Your task to perform on an android device: turn on javascript in the chrome app Image 0: 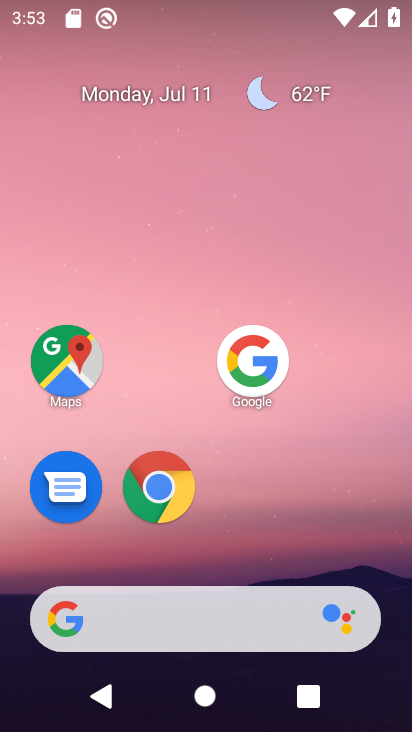
Step 0: click (163, 500)
Your task to perform on an android device: turn on javascript in the chrome app Image 1: 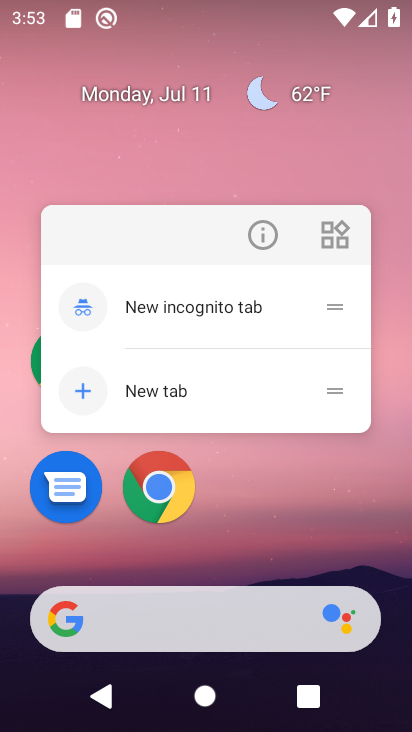
Step 1: click (168, 488)
Your task to perform on an android device: turn on javascript in the chrome app Image 2: 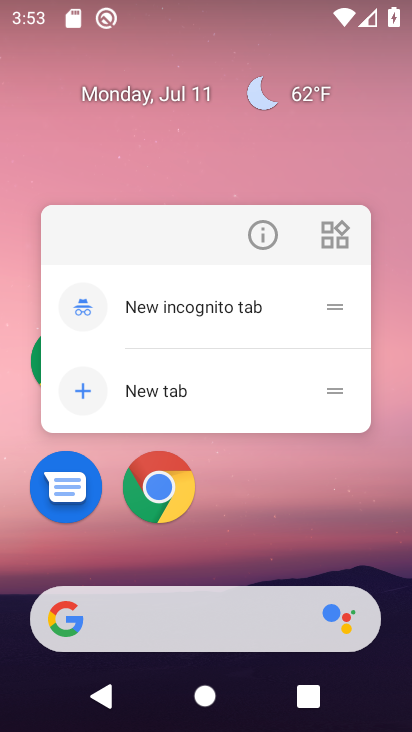
Step 2: click (168, 489)
Your task to perform on an android device: turn on javascript in the chrome app Image 3: 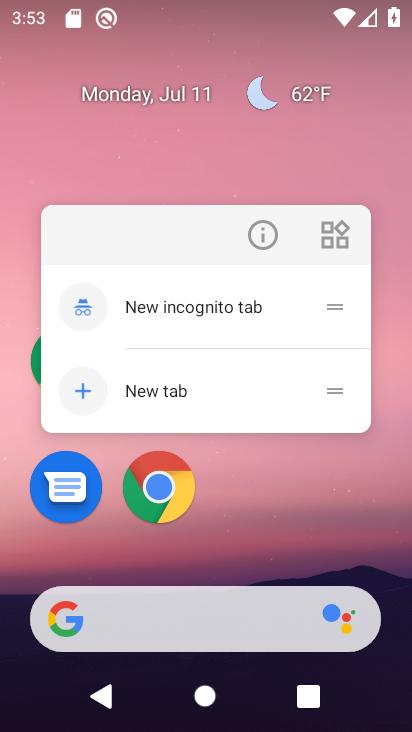
Step 3: click (163, 500)
Your task to perform on an android device: turn on javascript in the chrome app Image 4: 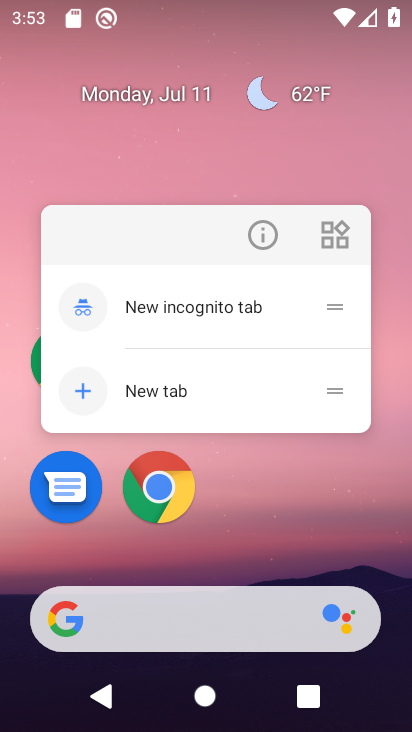
Step 4: click (160, 500)
Your task to perform on an android device: turn on javascript in the chrome app Image 5: 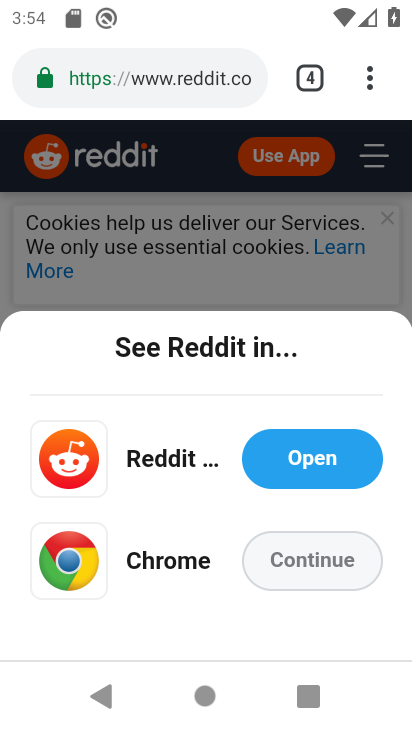
Step 5: drag from (371, 88) to (159, 559)
Your task to perform on an android device: turn on javascript in the chrome app Image 6: 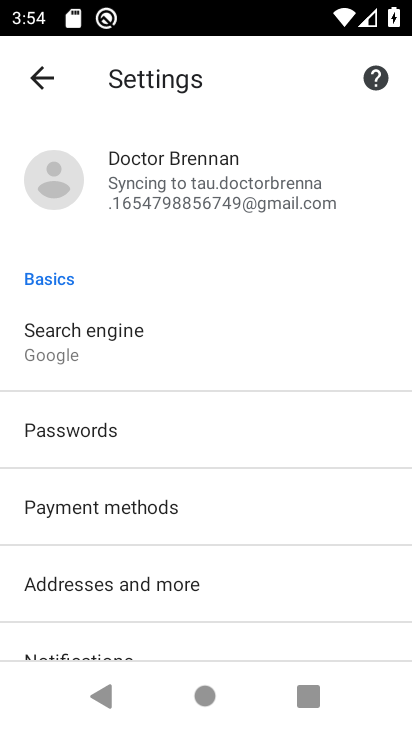
Step 6: drag from (166, 631) to (308, 175)
Your task to perform on an android device: turn on javascript in the chrome app Image 7: 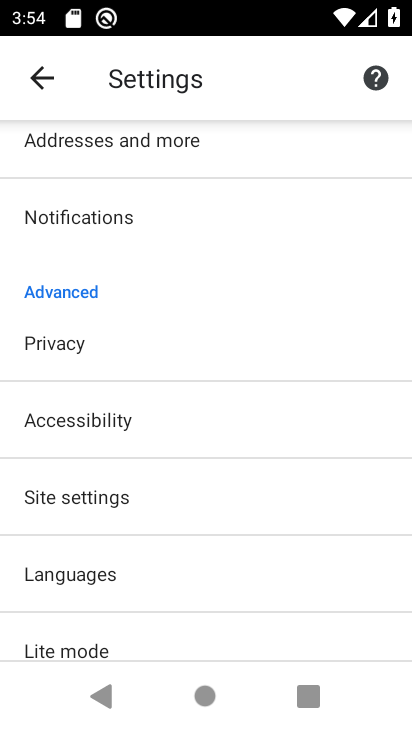
Step 7: click (124, 506)
Your task to perform on an android device: turn on javascript in the chrome app Image 8: 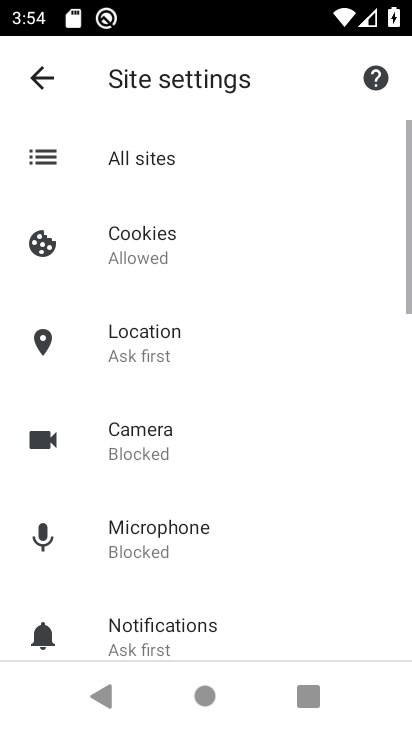
Step 8: drag from (229, 577) to (334, 105)
Your task to perform on an android device: turn on javascript in the chrome app Image 9: 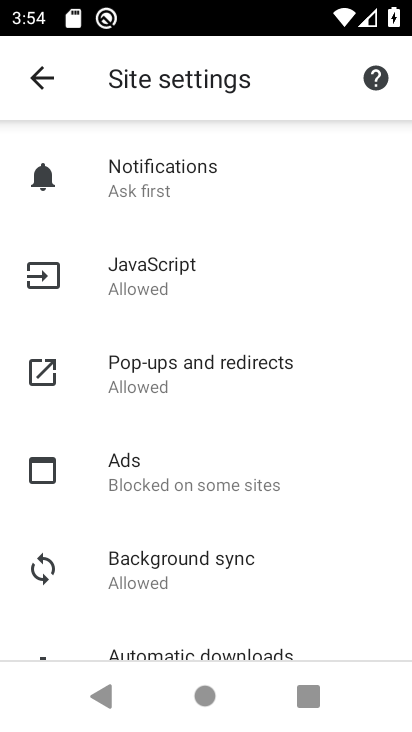
Step 9: click (154, 277)
Your task to perform on an android device: turn on javascript in the chrome app Image 10: 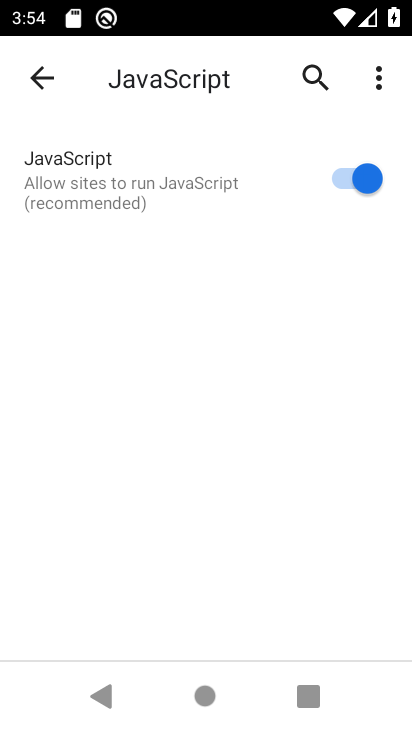
Step 10: task complete